Your task to perform on an android device: read, delete, or share a saved page in the chrome app Image 0: 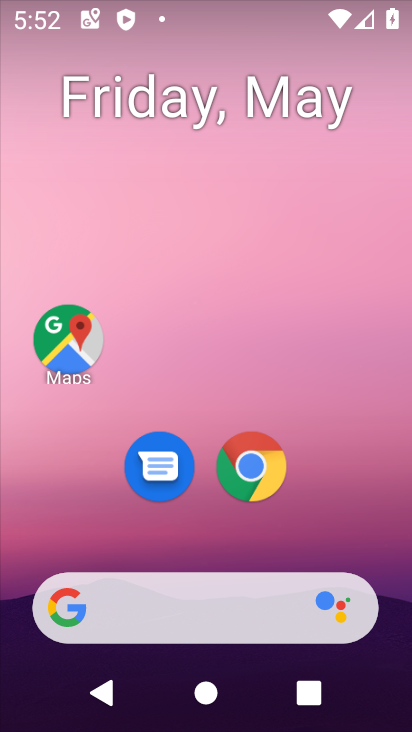
Step 0: drag from (341, 557) to (235, 20)
Your task to perform on an android device: read, delete, or share a saved page in the chrome app Image 1: 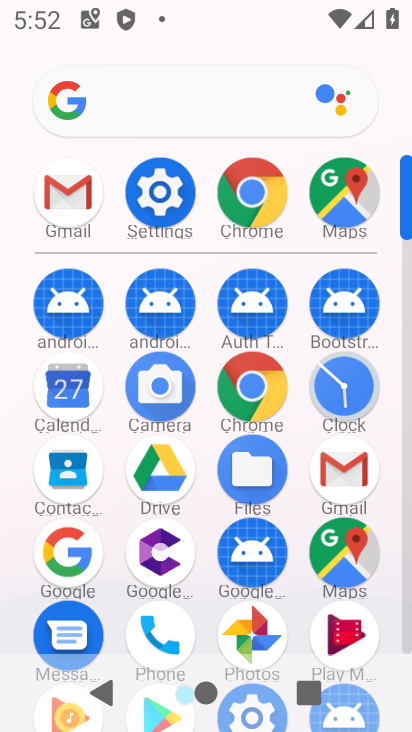
Step 1: drag from (17, 539) to (16, 246)
Your task to perform on an android device: read, delete, or share a saved page in the chrome app Image 2: 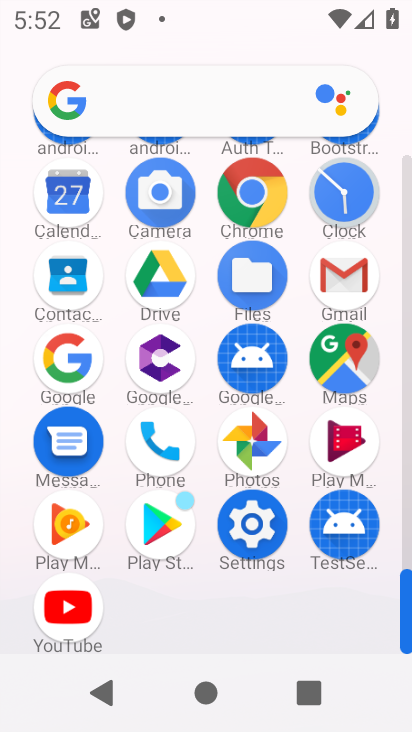
Step 2: click (248, 182)
Your task to perform on an android device: read, delete, or share a saved page in the chrome app Image 3: 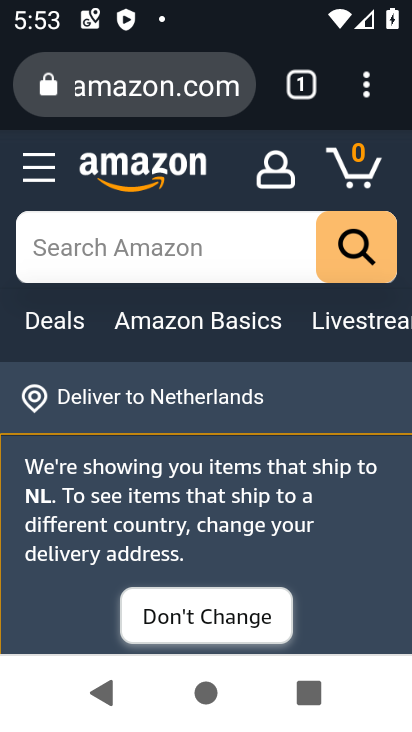
Step 3: drag from (363, 79) to (105, 508)
Your task to perform on an android device: read, delete, or share a saved page in the chrome app Image 4: 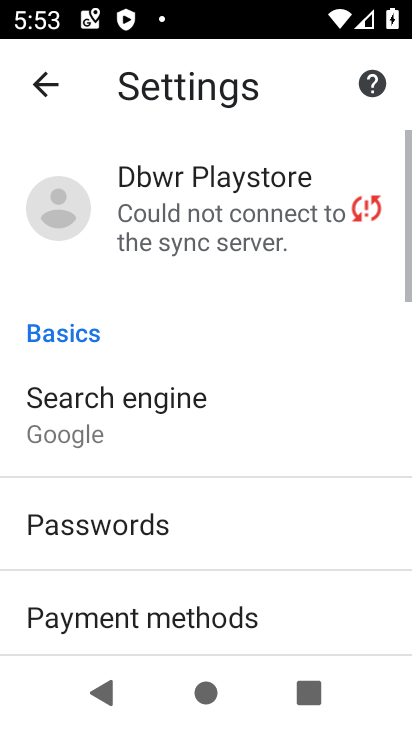
Step 4: drag from (246, 576) to (243, 222)
Your task to perform on an android device: read, delete, or share a saved page in the chrome app Image 5: 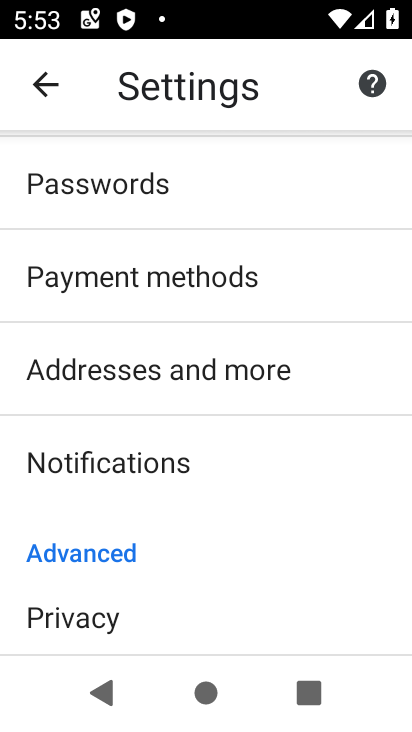
Step 5: drag from (215, 540) to (218, 225)
Your task to perform on an android device: read, delete, or share a saved page in the chrome app Image 6: 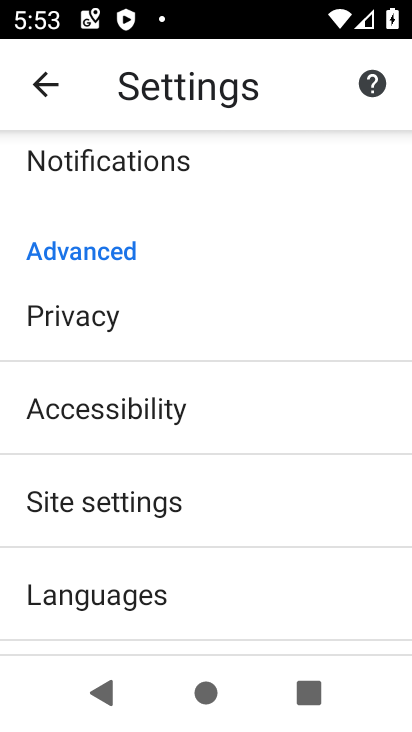
Step 6: drag from (212, 613) to (224, 224)
Your task to perform on an android device: read, delete, or share a saved page in the chrome app Image 7: 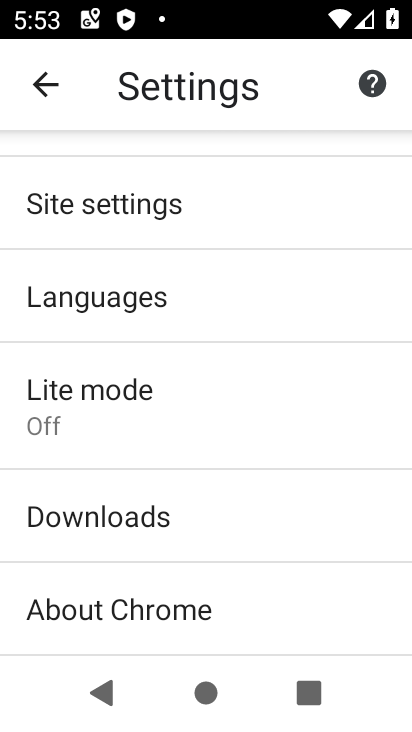
Step 7: click (118, 537)
Your task to perform on an android device: read, delete, or share a saved page in the chrome app Image 8: 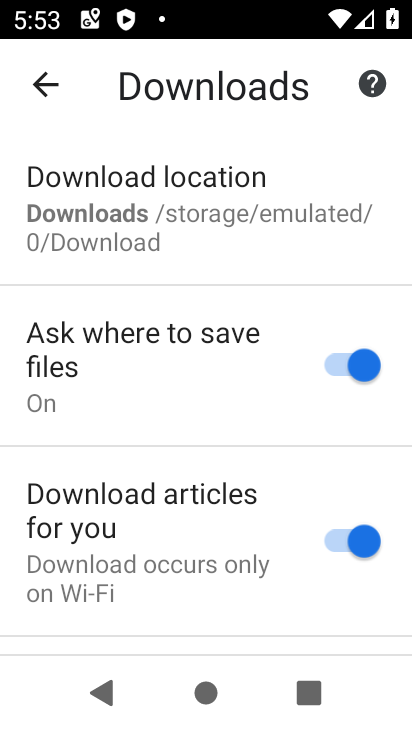
Step 8: task complete